Your task to perform on an android device: change the clock display to digital Image 0: 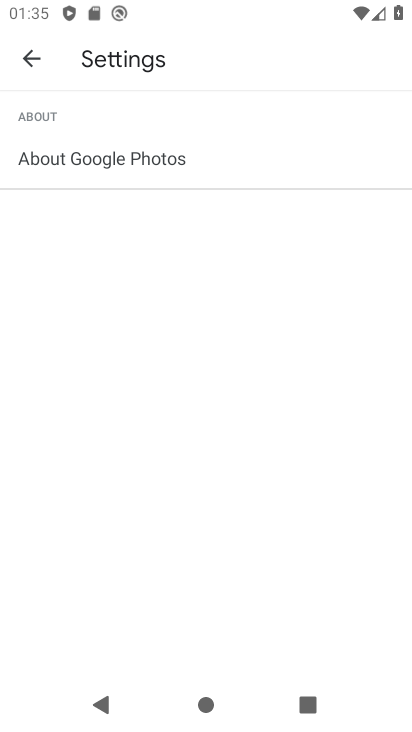
Step 0: drag from (158, 505) to (334, 174)
Your task to perform on an android device: change the clock display to digital Image 1: 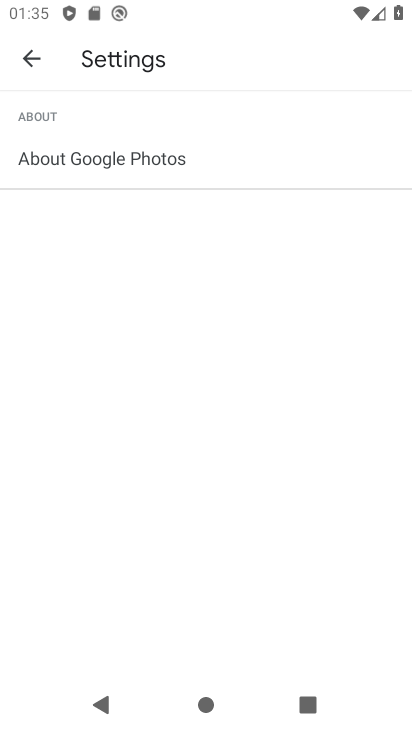
Step 1: press home button
Your task to perform on an android device: change the clock display to digital Image 2: 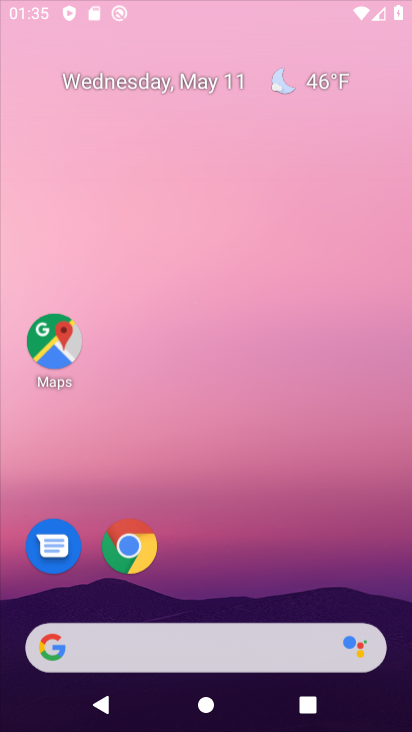
Step 2: drag from (249, 509) to (398, 12)
Your task to perform on an android device: change the clock display to digital Image 3: 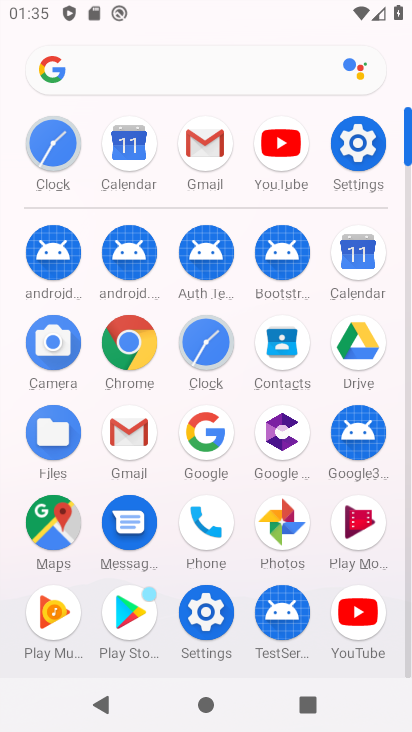
Step 3: click (203, 347)
Your task to perform on an android device: change the clock display to digital Image 4: 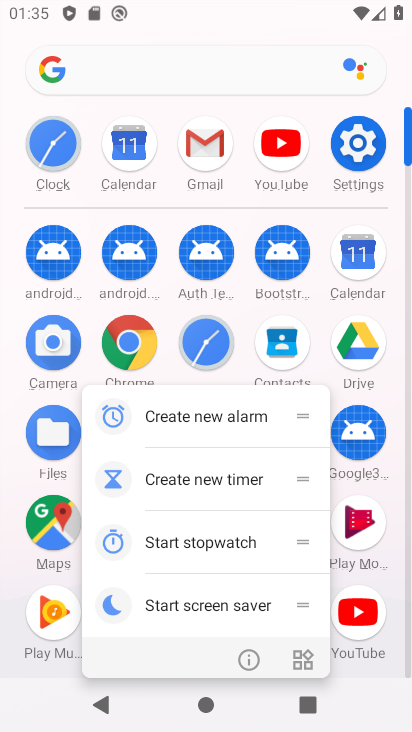
Step 4: click (245, 665)
Your task to perform on an android device: change the clock display to digital Image 5: 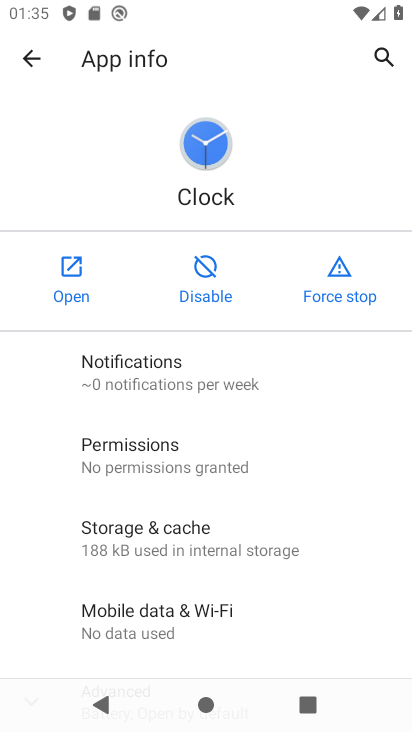
Step 5: click (67, 272)
Your task to perform on an android device: change the clock display to digital Image 6: 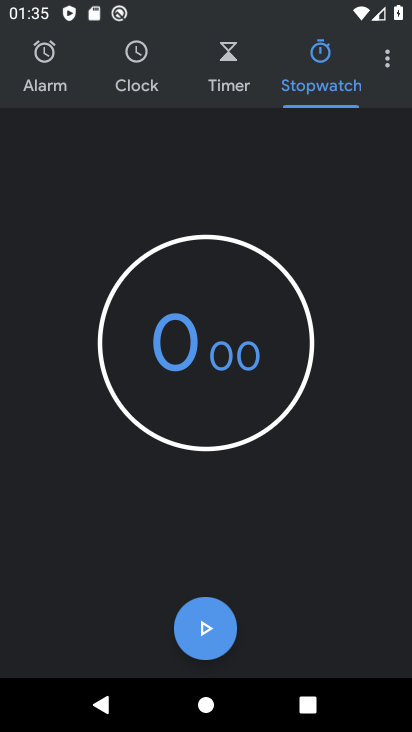
Step 6: click (386, 65)
Your task to perform on an android device: change the clock display to digital Image 7: 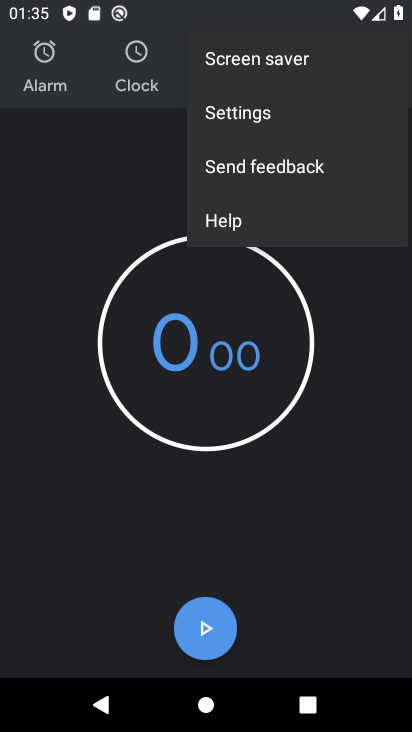
Step 7: click (268, 112)
Your task to perform on an android device: change the clock display to digital Image 8: 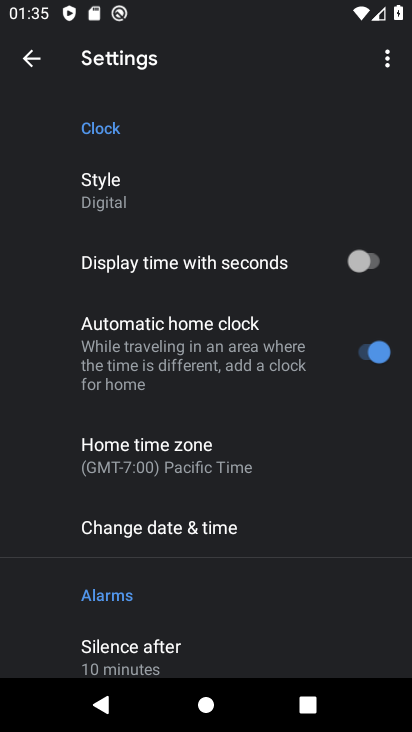
Step 8: click (153, 201)
Your task to perform on an android device: change the clock display to digital Image 9: 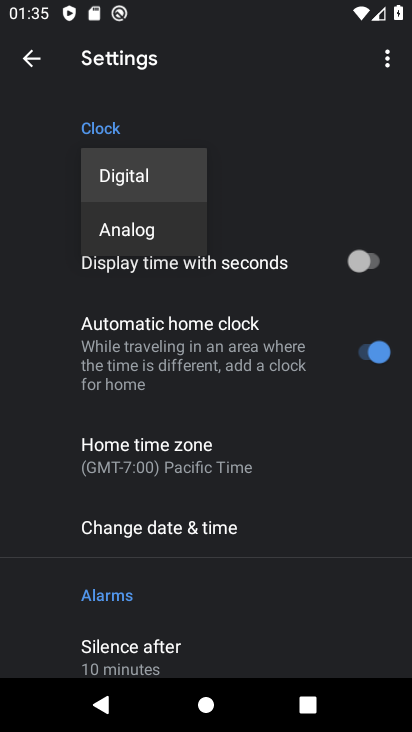
Step 9: task complete